Your task to perform on an android device: toggle sleep mode Image 0: 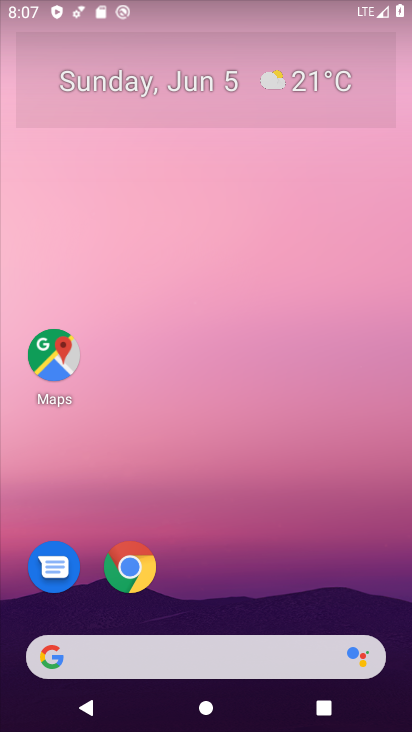
Step 0: drag from (268, 640) to (275, 415)
Your task to perform on an android device: toggle sleep mode Image 1: 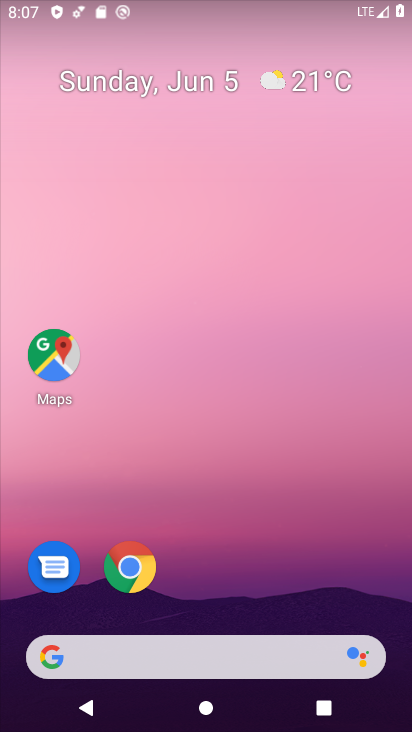
Step 1: drag from (161, 596) to (191, 372)
Your task to perform on an android device: toggle sleep mode Image 2: 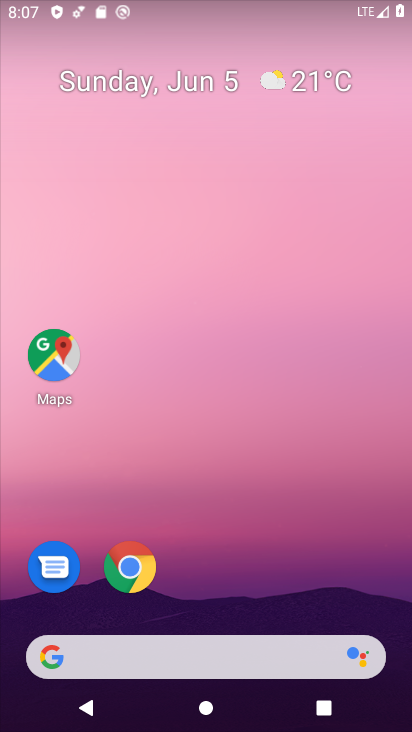
Step 2: drag from (210, 355) to (224, 260)
Your task to perform on an android device: toggle sleep mode Image 3: 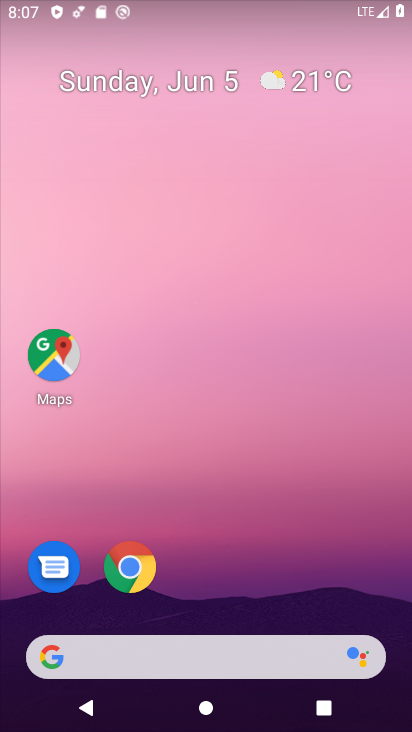
Step 3: drag from (213, 521) to (253, 280)
Your task to perform on an android device: toggle sleep mode Image 4: 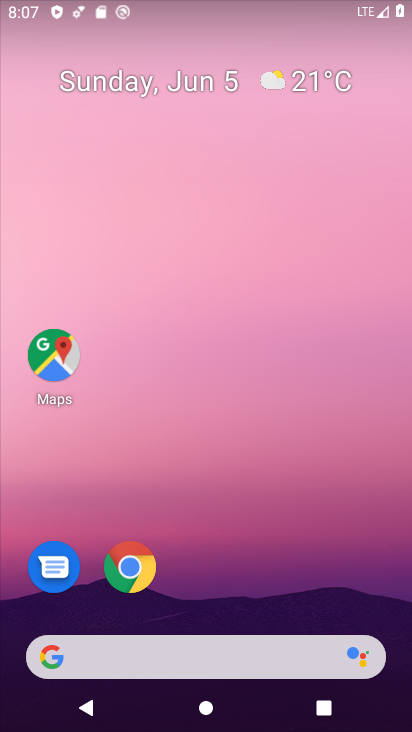
Step 4: drag from (221, 648) to (296, 237)
Your task to perform on an android device: toggle sleep mode Image 5: 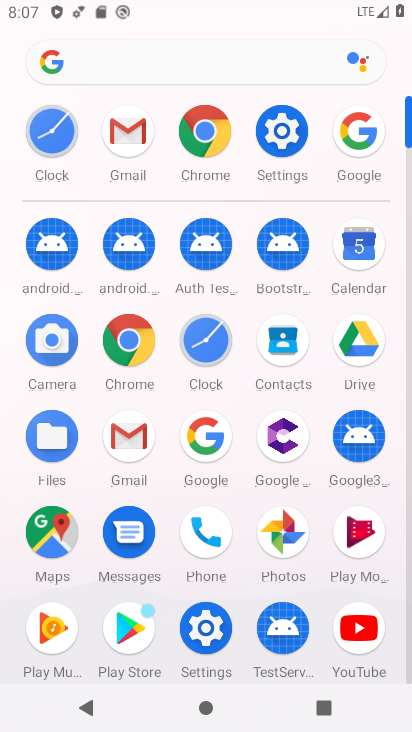
Step 5: click (283, 141)
Your task to perform on an android device: toggle sleep mode Image 6: 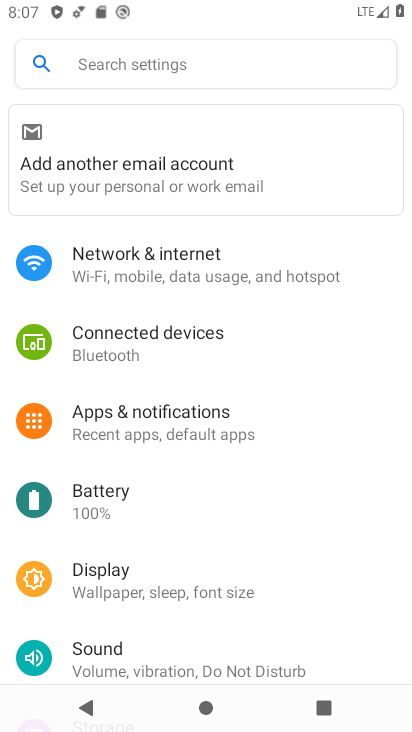
Step 6: click (182, 598)
Your task to perform on an android device: toggle sleep mode Image 7: 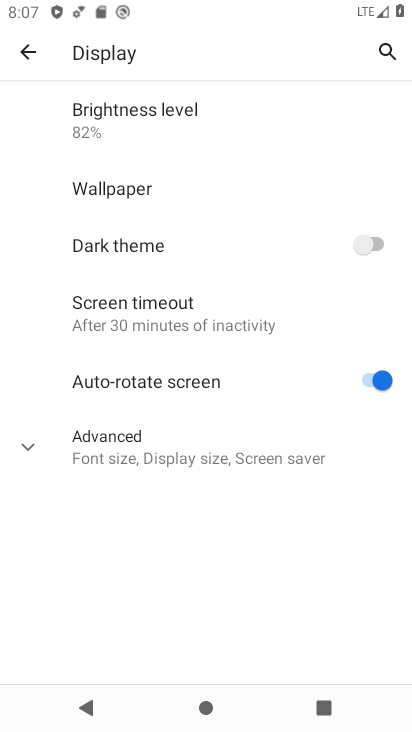
Step 7: click (205, 448)
Your task to perform on an android device: toggle sleep mode Image 8: 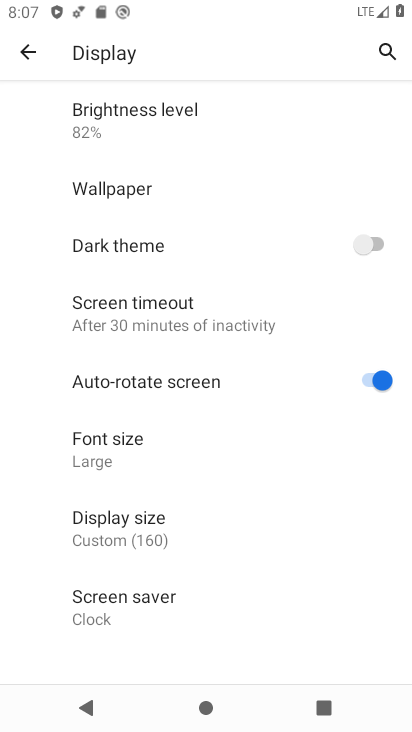
Step 8: click (162, 328)
Your task to perform on an android device: toggle sleep mode Image 9: 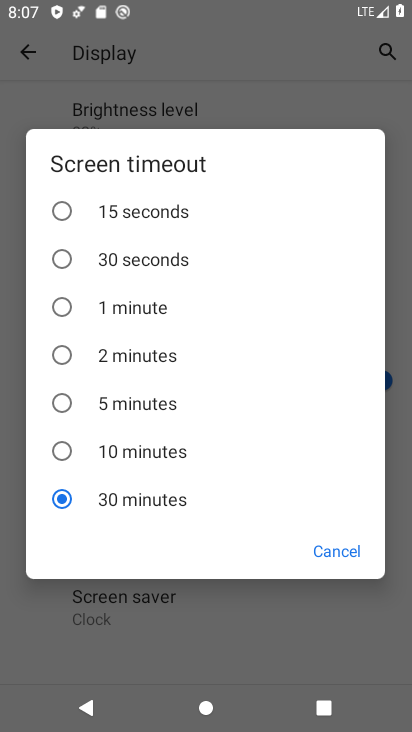
Step 9: click (162, 214)
Your task to perform on an android device: toggle sleep mode Image 10: 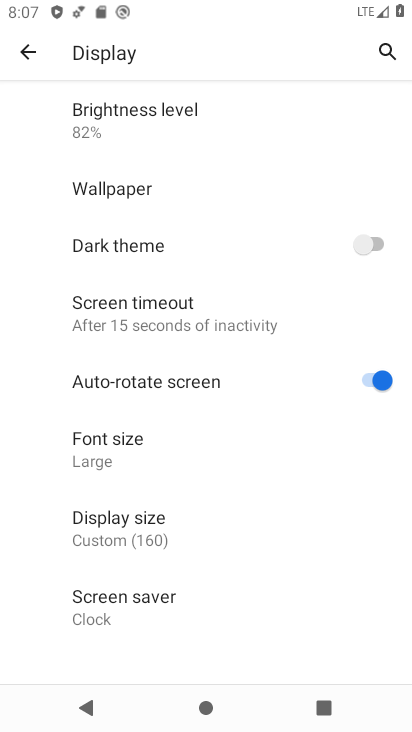
Step 10: task complete